Your task to perform on an android device: Search for rayovac triple a on ebay, select the first entry, add it to the cart, then select checkout. Image 0: 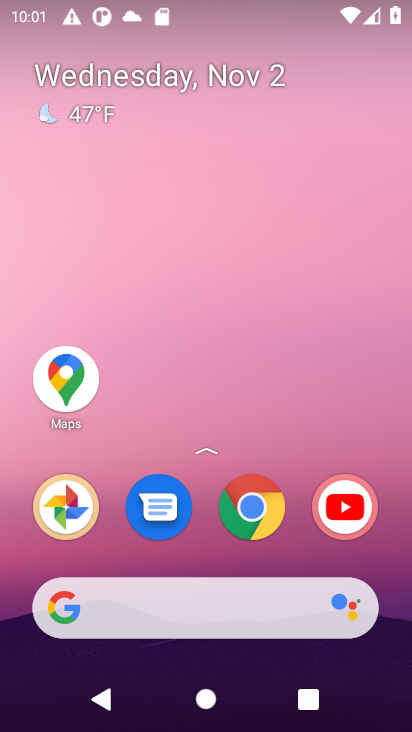
Step 0: click (268, 616)
Your task to perform on an android device: Search for rayovac triple a on ebay, select the first entry, add it to the cart, then select checkout. Image 1: 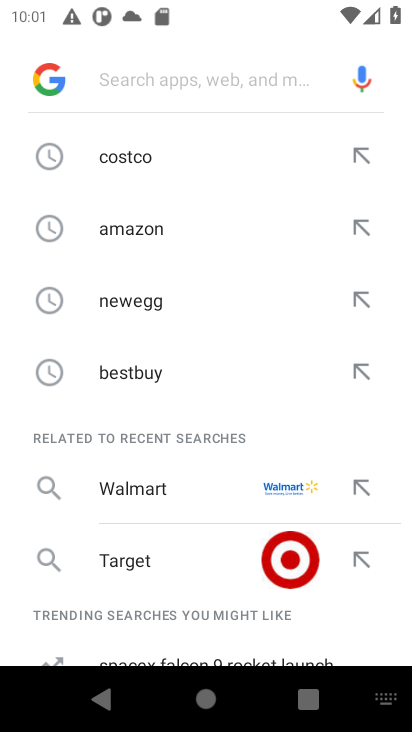
Step 1: type "ebay"
Your task to perform on an android device: Search for rayovac triple a on ebay, select the first entry, add it to the cart, then select checkout. Image 2: 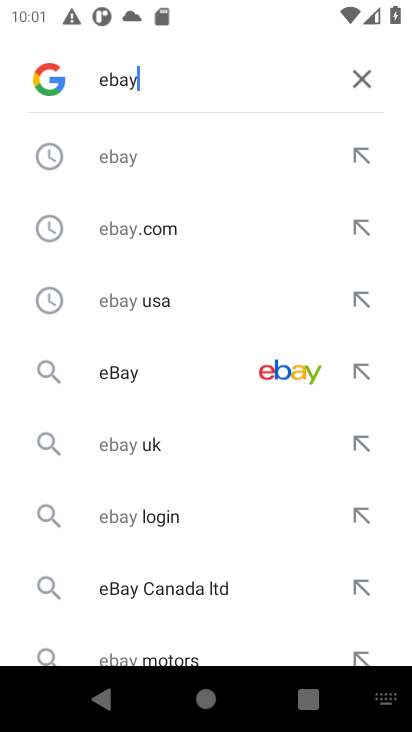
Step 2: click (159, 172)
Your task to perform on an android device: Search for rayovac triple a on ebay, select the first entry, add it to the cart, then select checkout. Image 3: 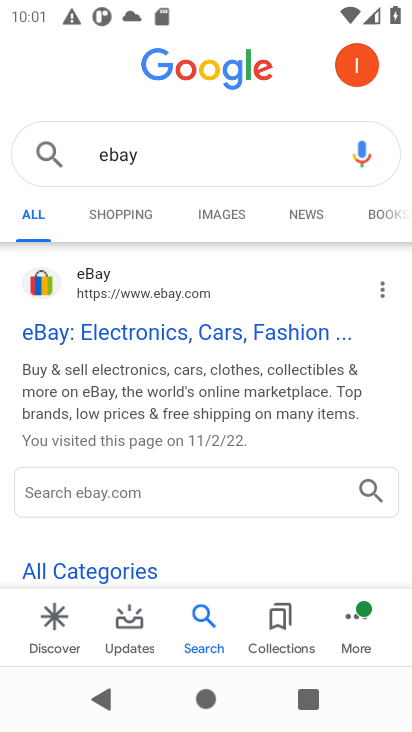
Step 3: click (136, 326)
Your task to perform on an android device: Search for rayovac triple a on ebay, select the first entry, add it to the cart, then select checkout. Image 4: 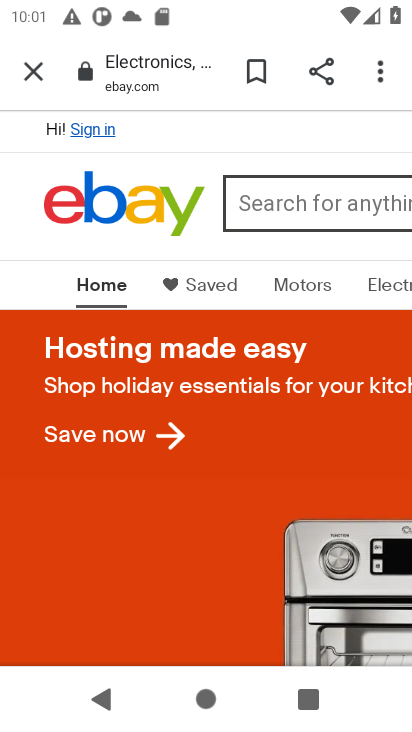
Step 4: click (300, 197)
Your task to perform on an android device: Search for rayovac triple a on ebay, select the first entry, add it to the cart, then select checkout. Image 5: 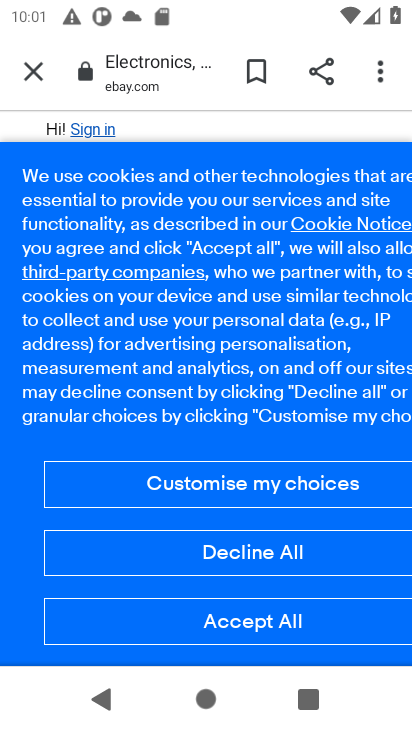
Step 5: click (228, 628)
Your task to perform on an android device: Search for rayovac triple a on ebay, select the first entry, add it to the cart, then select checkout. Image 6: 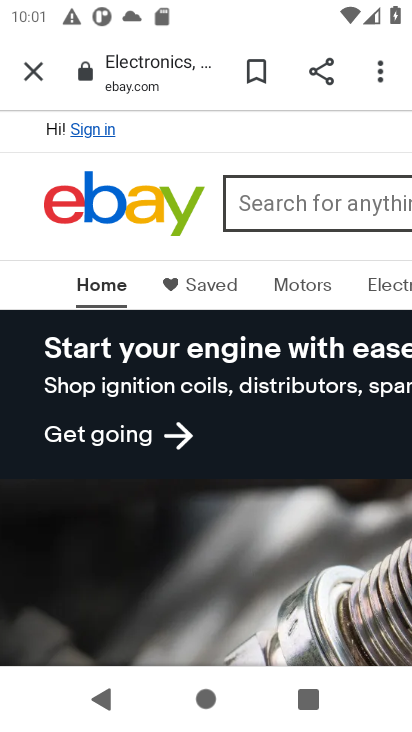
Step 6: click (282, 213)
Your task to perform on an android device: Search for rayovac triple a on ebay, select the first entry, add it to the cart, then select checkout. Image 7: 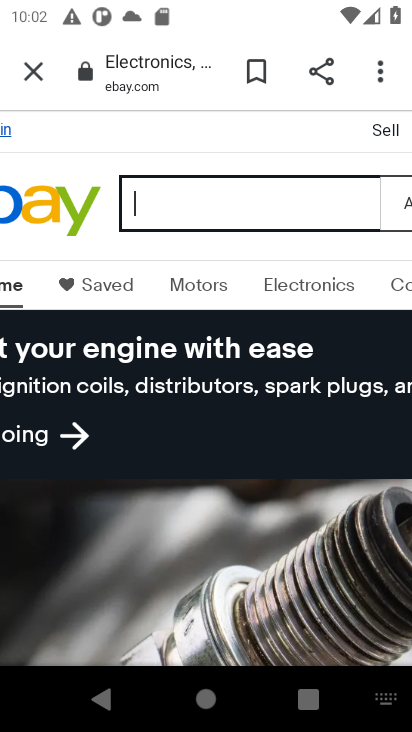
Step 7: type "rayovac'"
Your task to perform on an android device: Search for rayovac triple a on ebay, select the first entry, add it to the cart, then select checkout. Image 8: 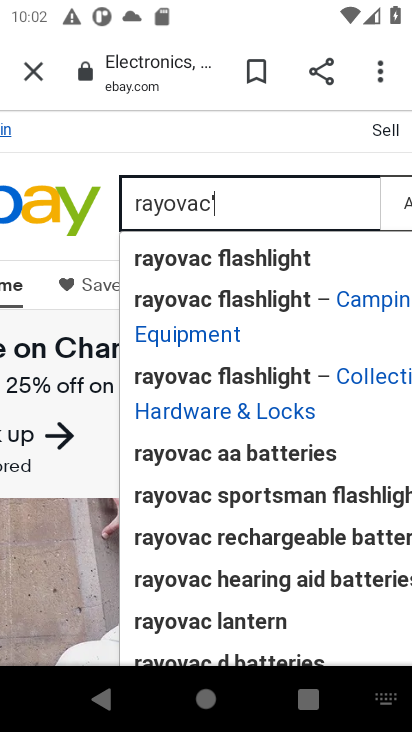
Step 8: click (232, 457)
Your task to perform on an android device: Search for rayovac triple a on ebay, select the first entry, add it to the cart, then select checkout. Image 9: 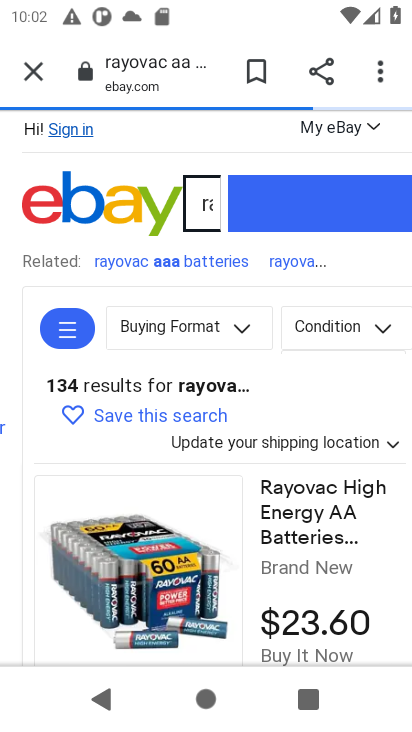
Step 9: click (196, 568)
Your task to perform on an android device: Search for rayovac triple a on ebay, select the first entry, add it to the cart, then select checkout. Image 10: 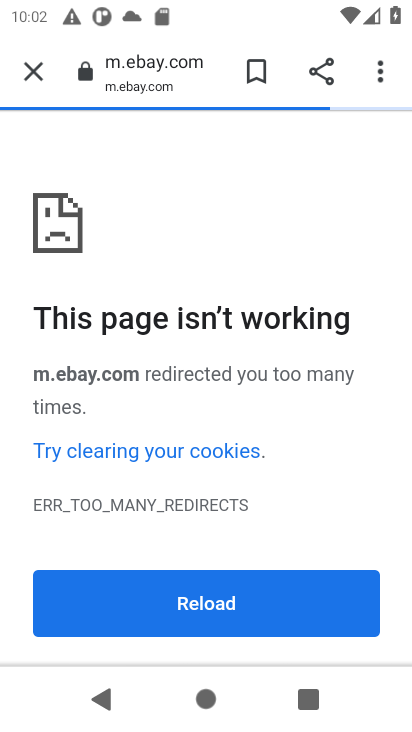
Step 10: task complete